Your task to perform on an android device: change text size in settings app Image 0: 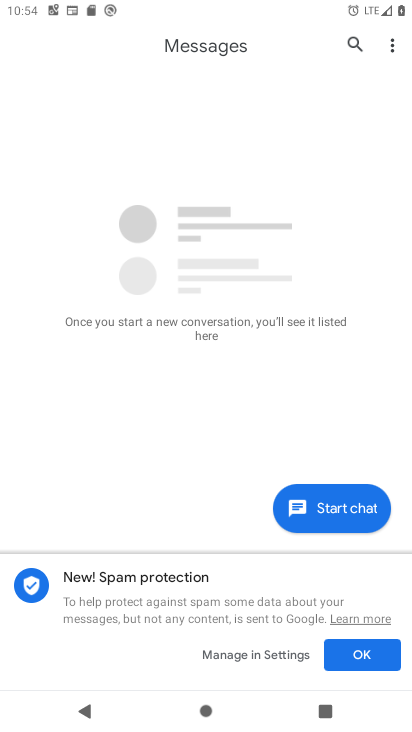
Step 0: press home button
Your task to perform on an android device: change text size in settings app Image 1: 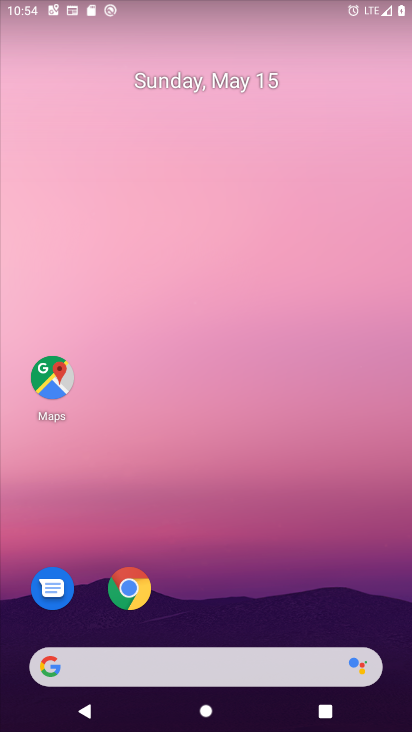
Step 1: drag from (244, 603) to (258, 143)
Your task to perform on an android device: change text size in settings app Image 2: 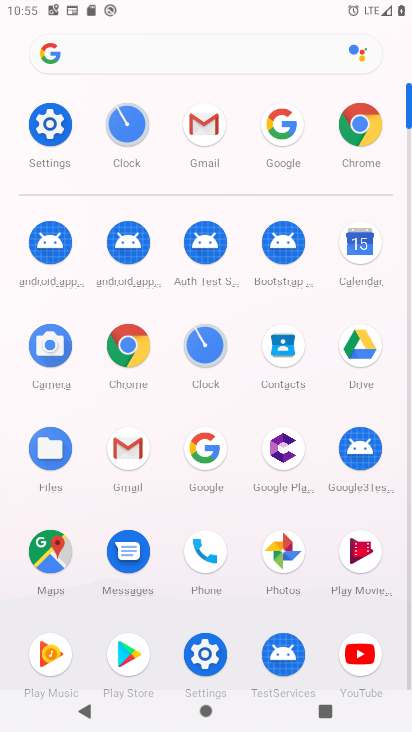
Step 2: click (51, 130)
Your task to perform on an android device: change text size in settings app Image 3: 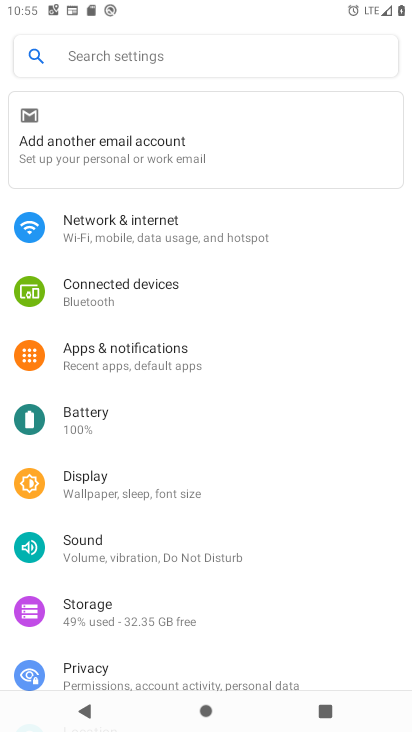
Step 3: click (128, 487)
Your task to perform on an android device: change text size in settings app Image 4: 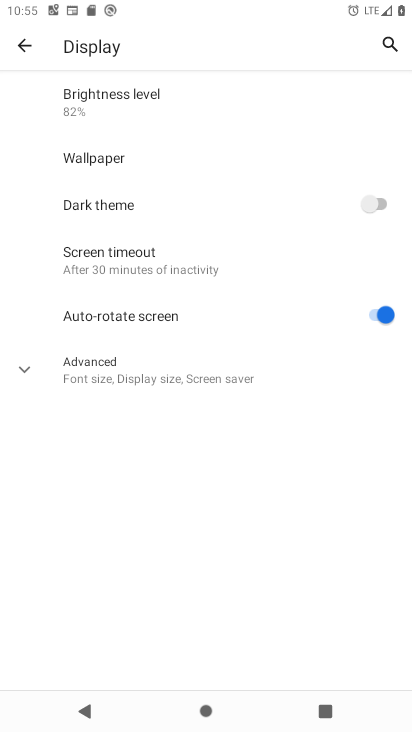
Step 4: click (164, 382)
Your task to perform on an android device: change text size in settings app Image 5: 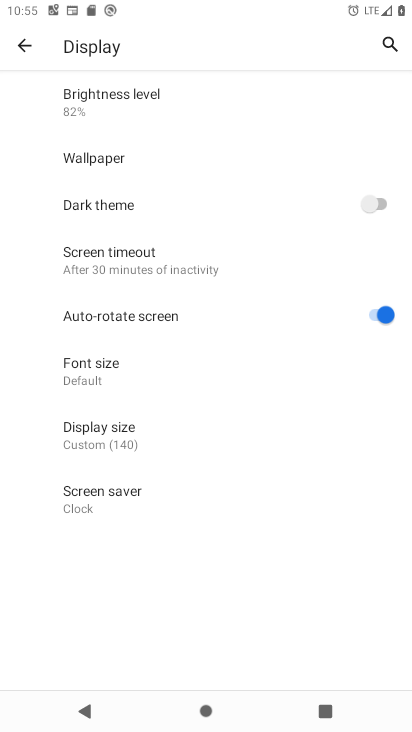
Step 5: click (110, 378)
Your task to perform on an android device: change text size in settings app Image 6: 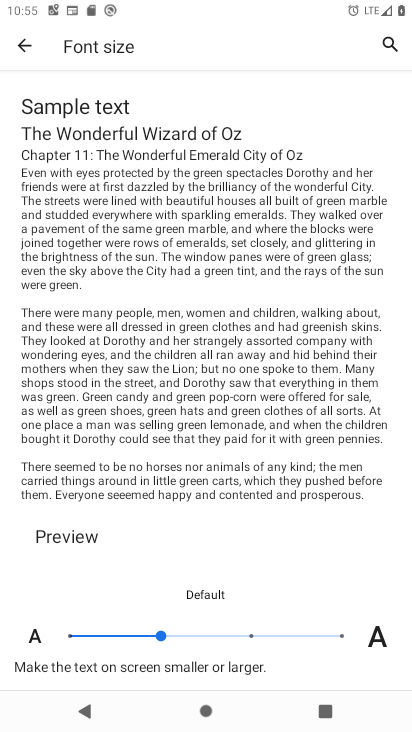
Step 6: click (251, 634)
Your task to perform on an android device: change text size in settings app Image 7: 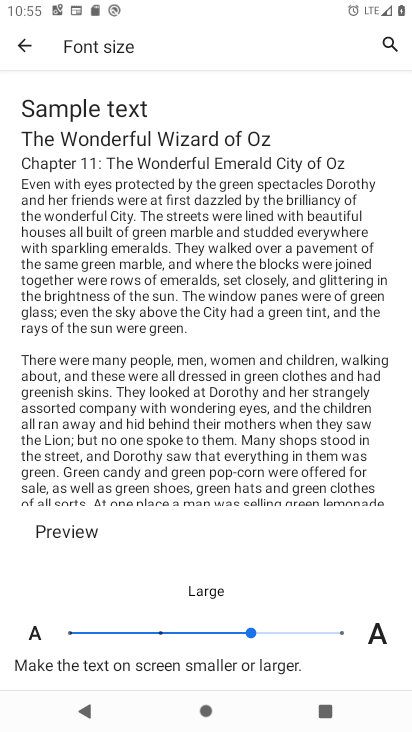
Step 7: task complete